Your task to perform on an android device: set an alarm Image 0: 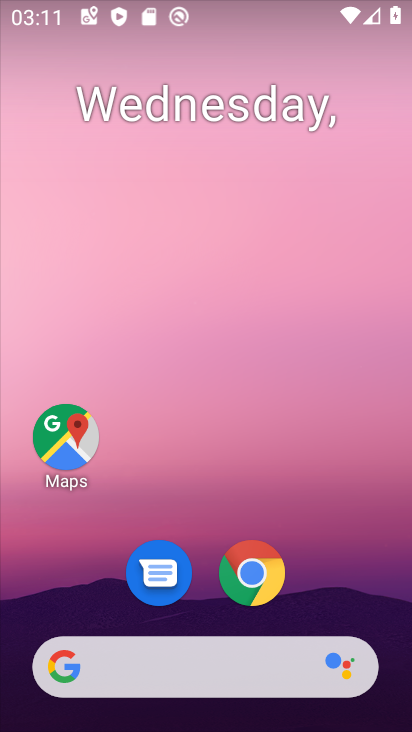
Step 0: drag from (214, 691) to (210, 127)
Your task to perform on an android device: set an alarm Image 1: 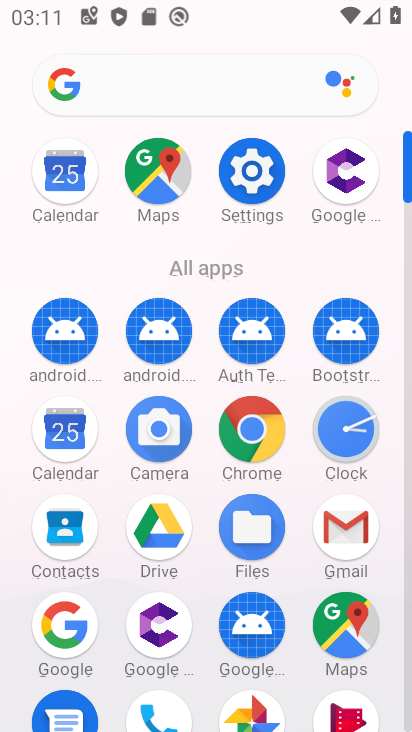
Step 1: click (340, 414)
Your task to perform on an android device: set an alarm Image 2: 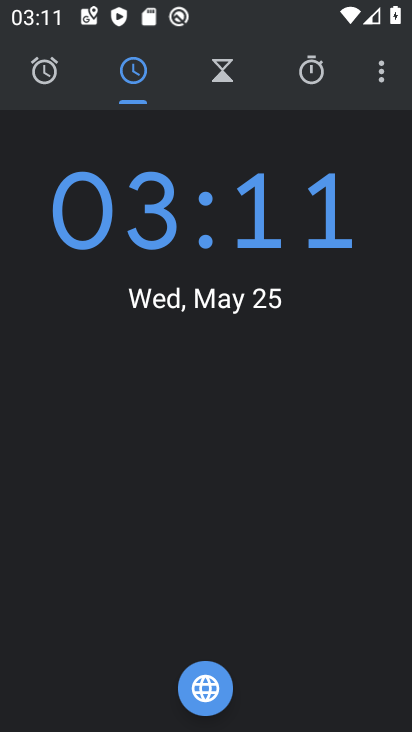
Step 2: click (38, 74)
Your task to perform on an android device: set an alarm Image 3: 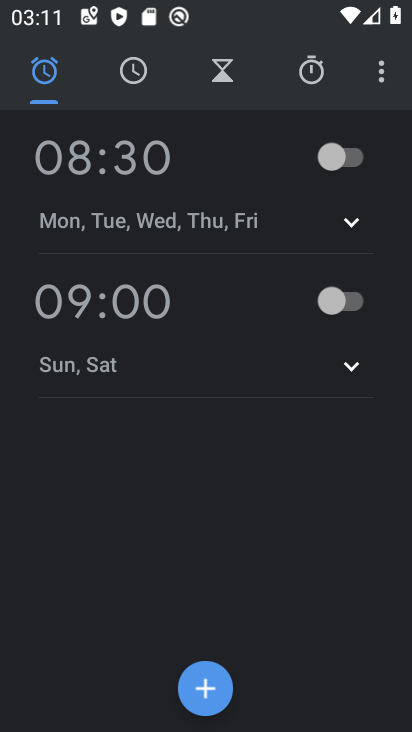
Step 3: click (204, 686)
Your task to perform on an android device: set an alarm Image 4: 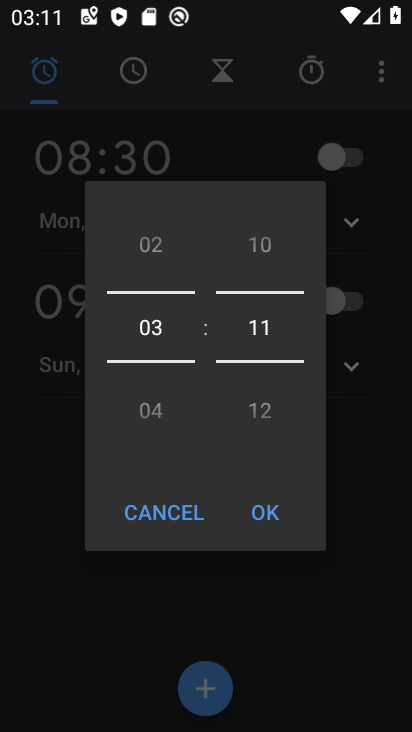
Step 4: drag from (260, 401) to (264, 162)
Your task to perform on an android device: set an alarm Image 5: 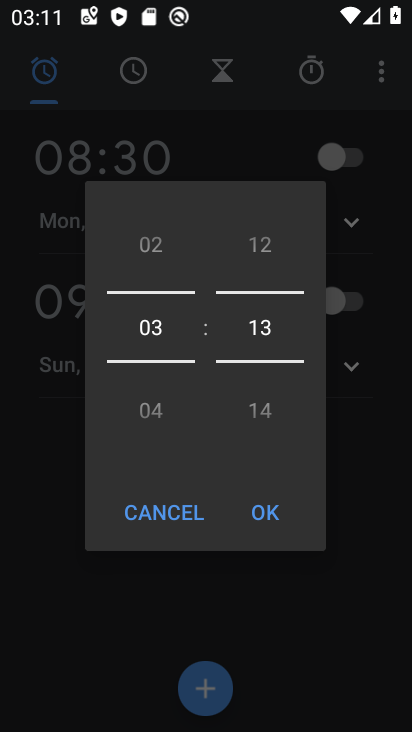
Step 5: drag from (161, 241) to (156, 545)
Your task to perform on an android device: set an alarm Image 6: 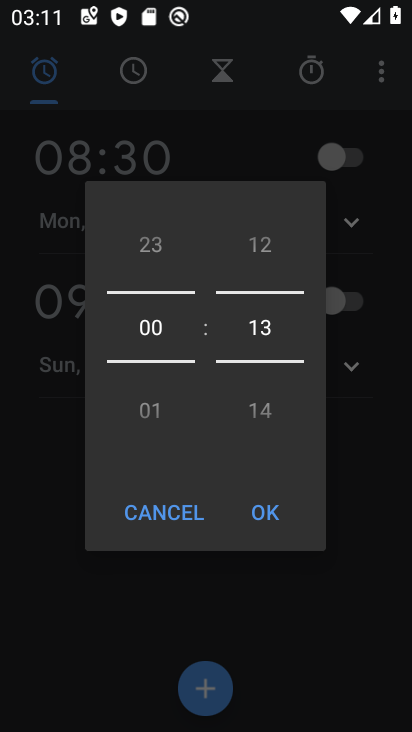
Step 6: click (261, 513)
Your task to perform on an android device: set an alarm Image 7: 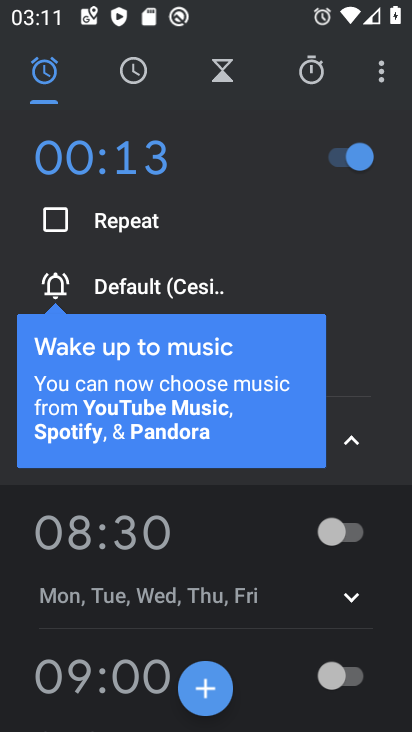
Step 7: task complete